Your task to perform on an android device: What time is it? Image 0: 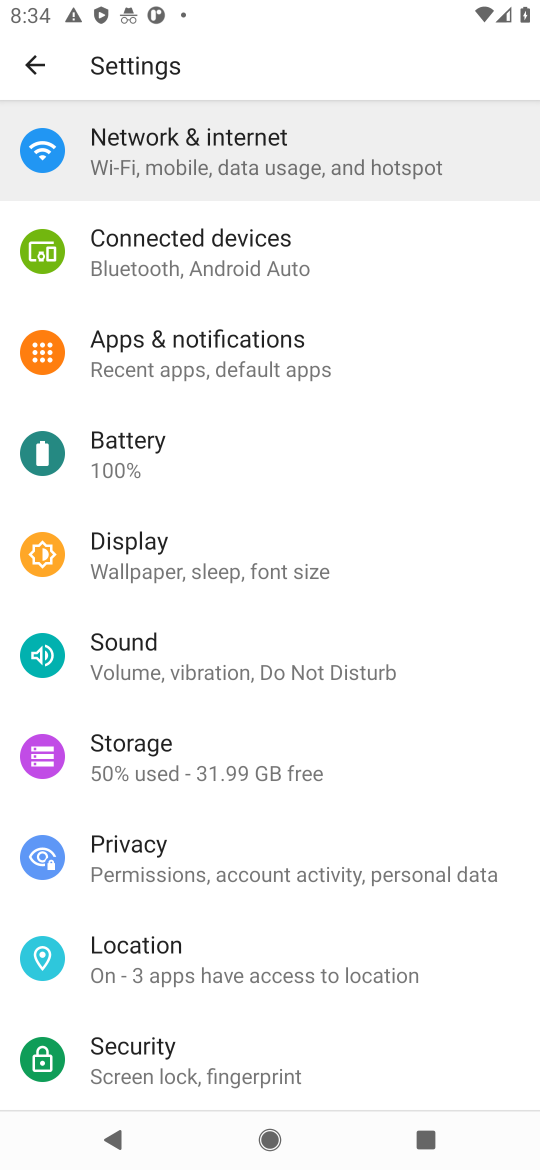
Step 0: press home button
Your task to perform on an android device: What time is it? Image 1: 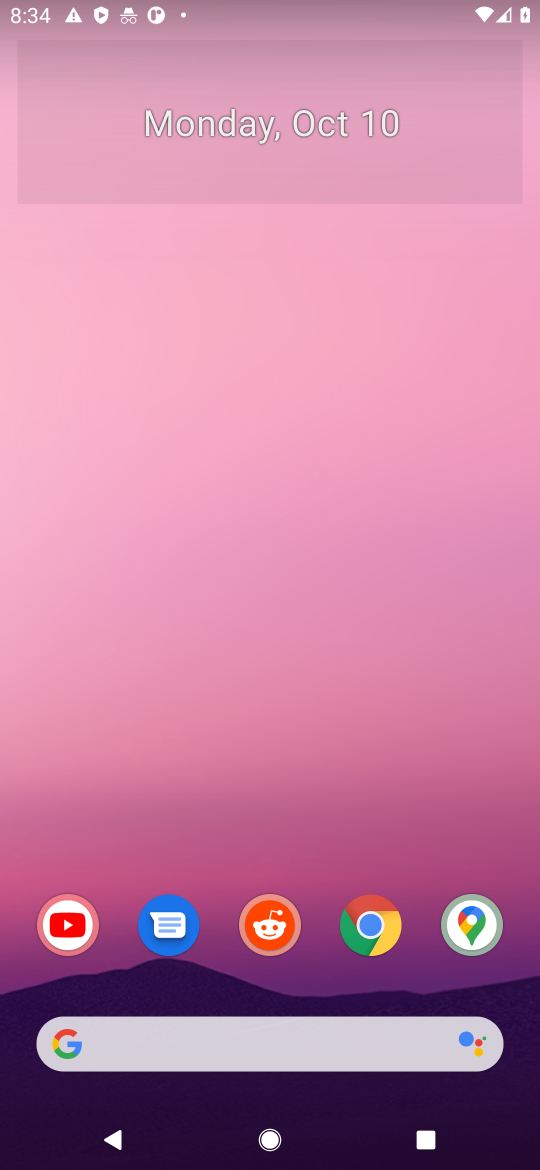
Step 1: drag from (304, 835) to (260, 127)
Your task to perform on an android device: What time is it? Image 2: 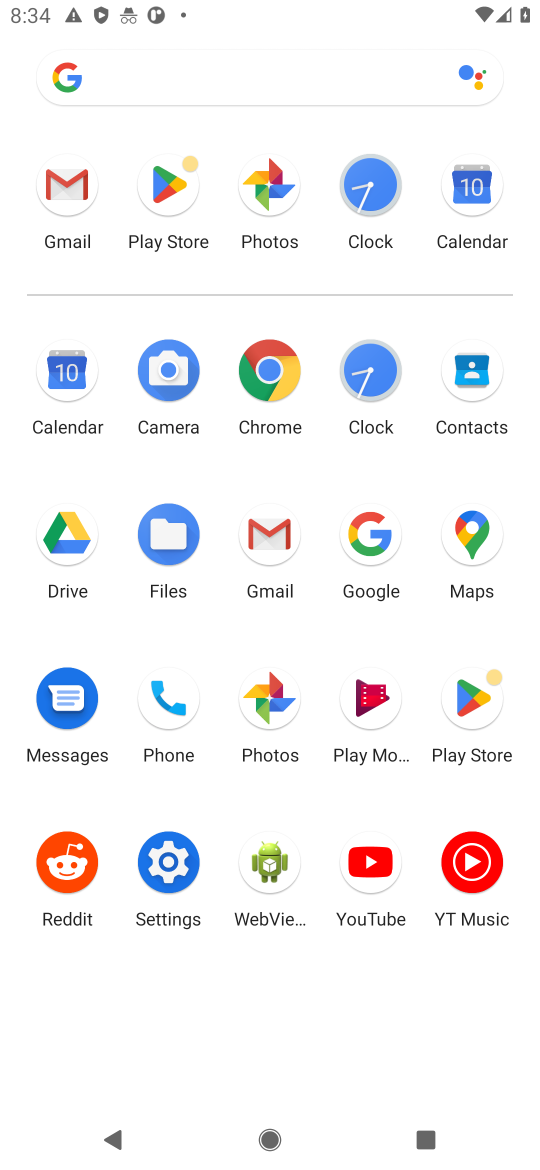
Step 2: click (269, 376)
Your task to perform on an android device: What time is it? Image 3: 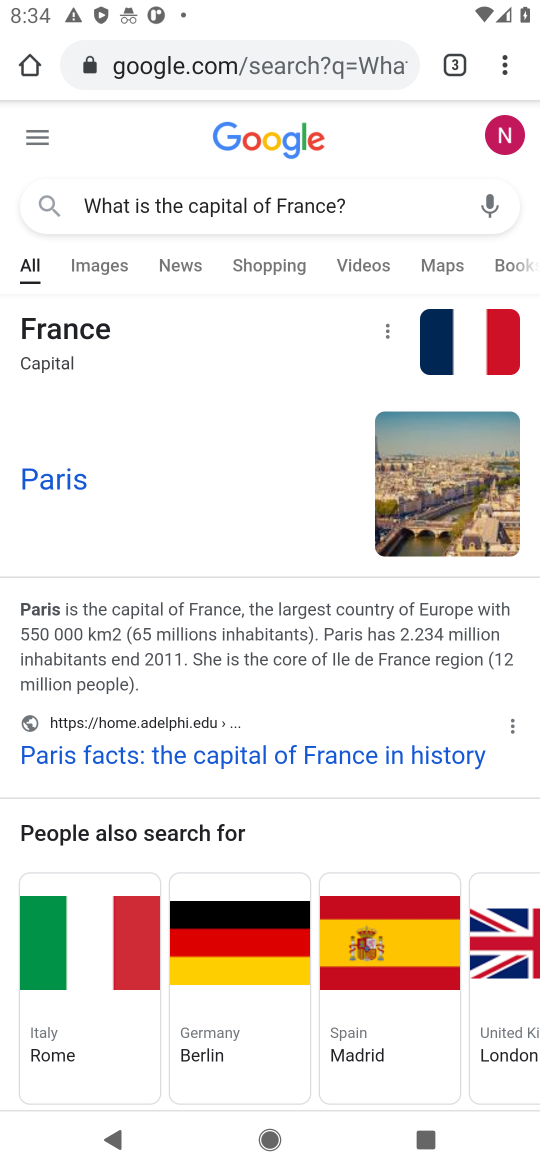
Step 3: click (265, 59)
Your task to perform on an android device: What time is it? Image 4: 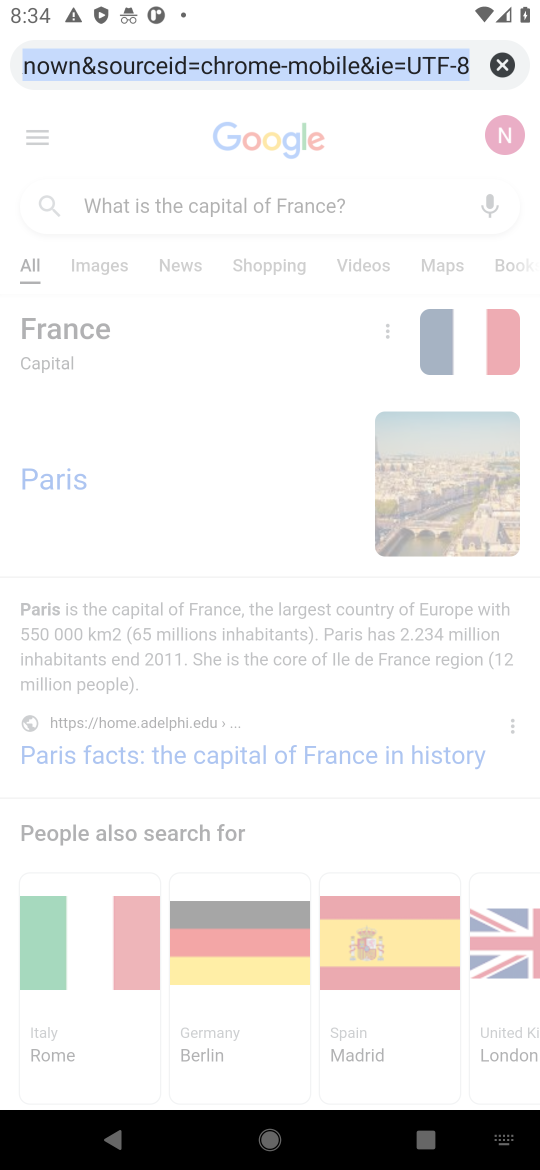
Step 4: type "What time is it?"
Your task to perform on an android device: What time is it? Image 5: 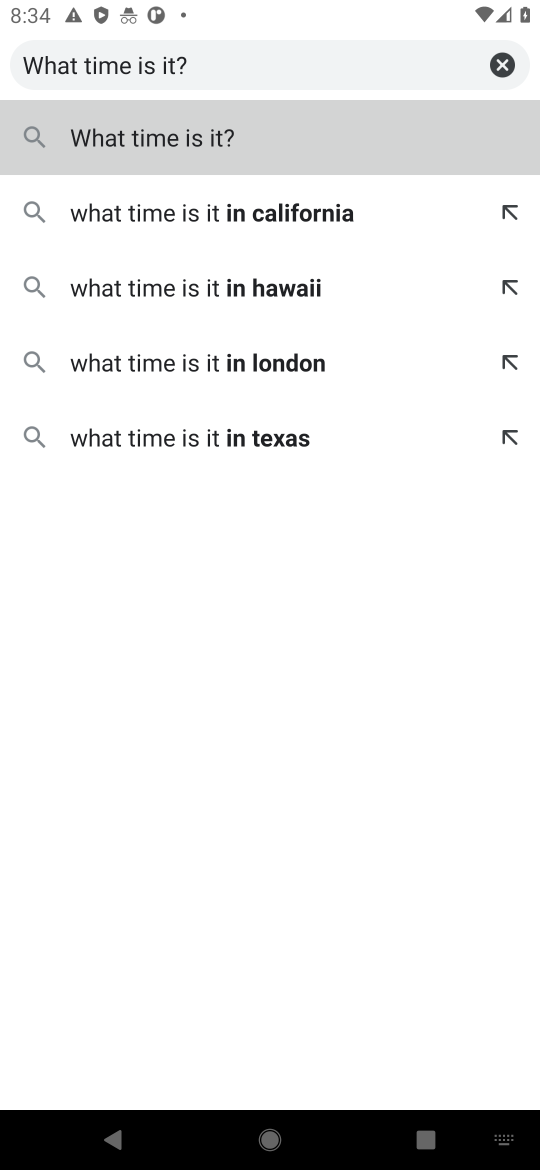
Step 5: press enter
Your task to perform on an android device: What time is it? Image 6: 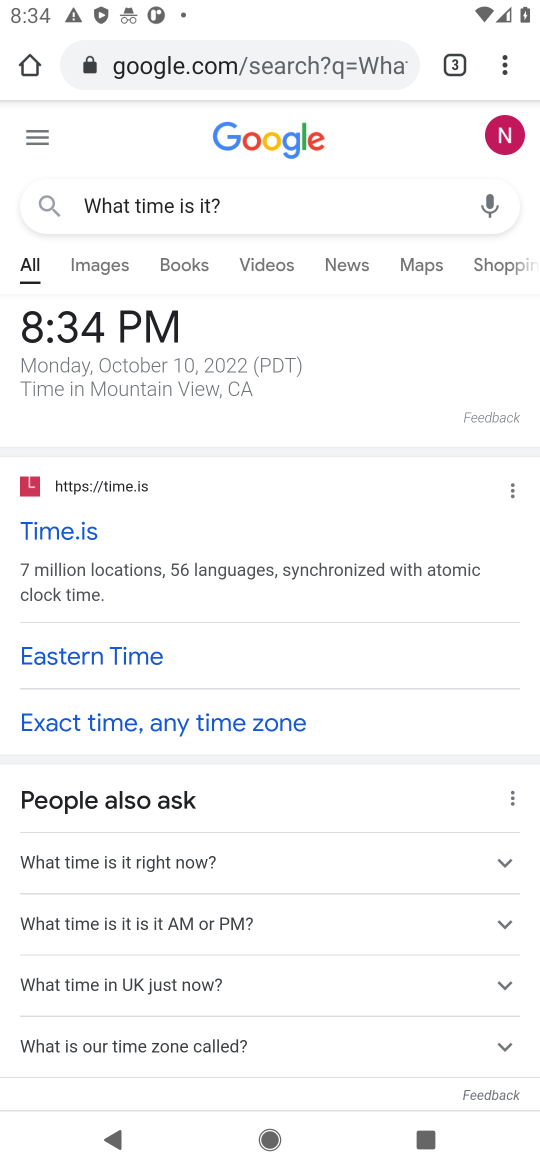
Step 6: task complete